Your task to perform on an android device: choose inbox layout in the gmail app Image 0: 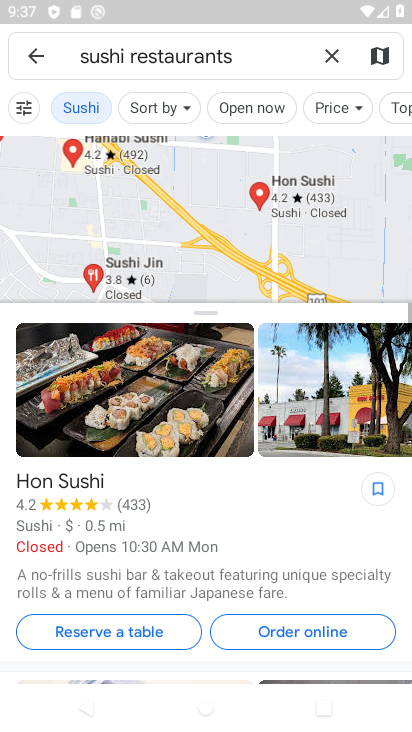
Step 0: press home button
Your task to perform on an android device: choose inbox layout in the gmail app Image 1: 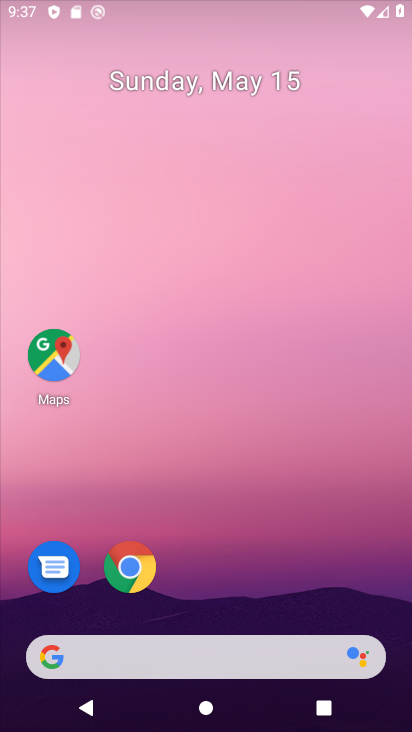
Step 1: drag from (223, 536) to (204, 95)
Your task to perform on an android device: choose inbox layout in the gmail app Image 2: 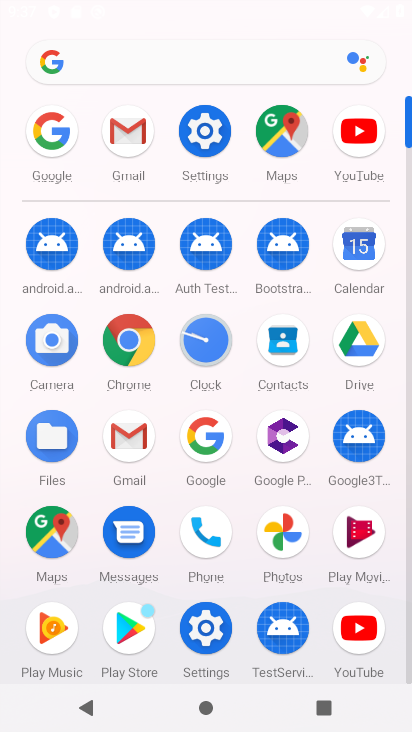
Step 2: click (117, 127)
Your task to perform on an android device: choose inbox layout in the gmail app Image 3: 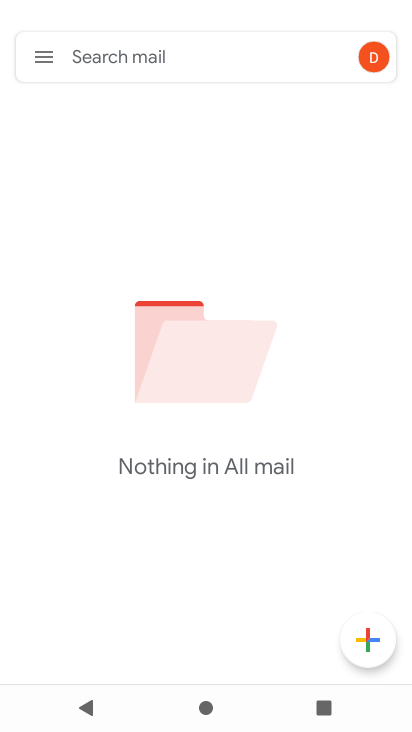
Step 3: click (47, 58)
Your task to perform on an android device: choose inbox layout in the gmail app Image 4: 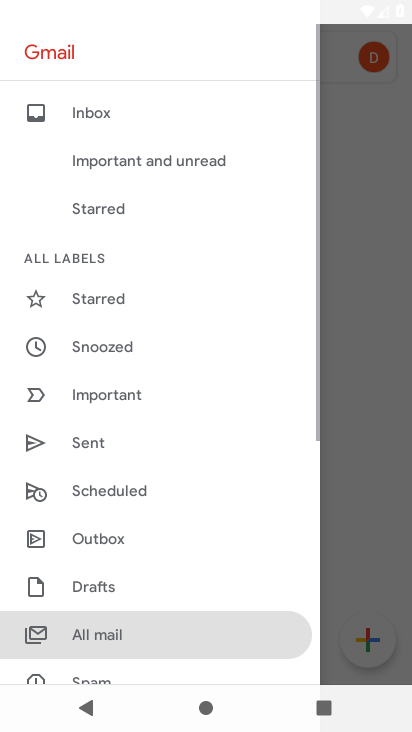
Step 4: drag from (175, 589) to (174, 340)
Your task to perform on an android device: choose inbox layout in the gmail app Image 5: 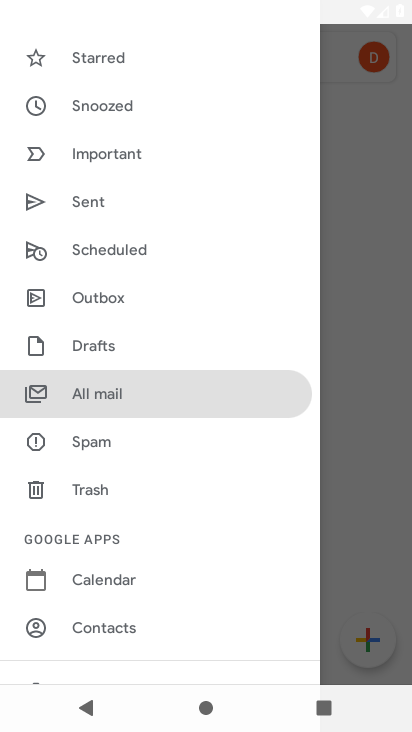
Step 5: drag from (136, 572) to (136, 297)
Your task to perform on an android device: choose inbox layout in the gmail app Image 6: 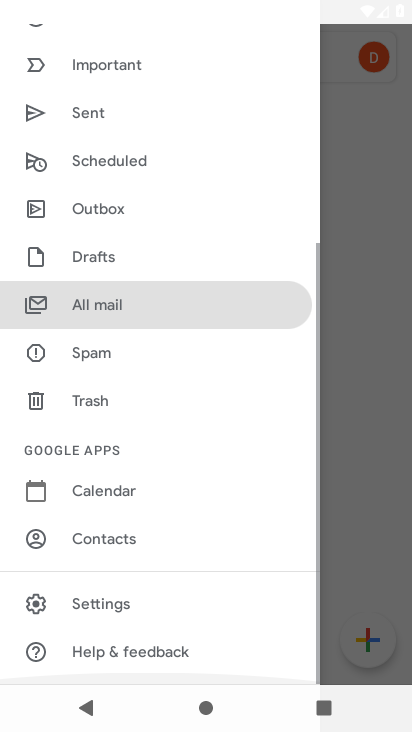
Step 6: click (87, 605)
Your task to perform on an android device: choose inbox layout in the gmail app Image 7: 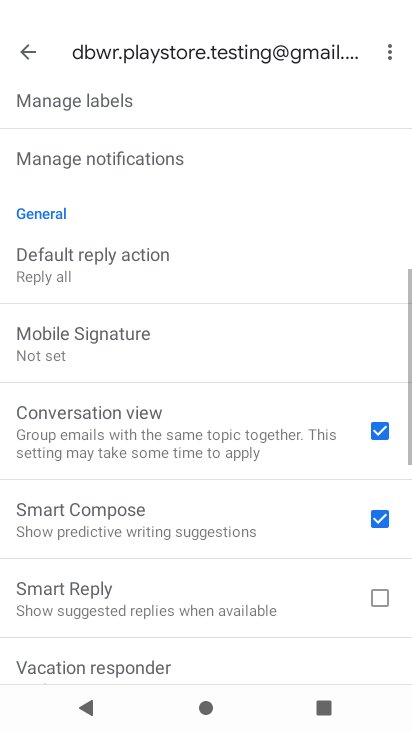
Step 7: drag from (138, 238) to (180, 664)
Your task to perform on an android device: choose inbox layout in the gmail app Image 8: 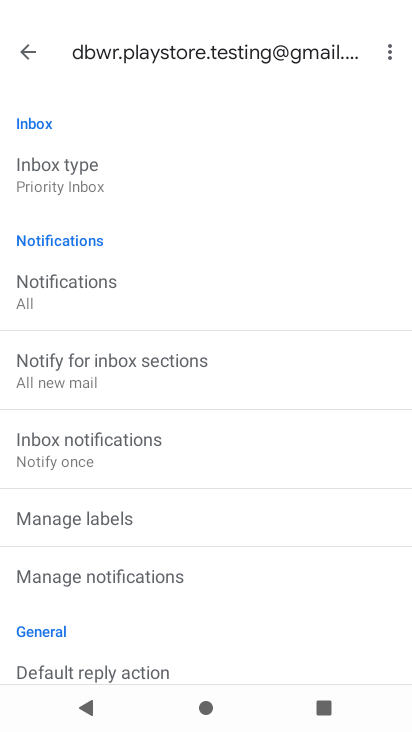
Step 8: click (89, 171)
Your task to perform on an android device: choose inbox layout in the gmail app Image 9: 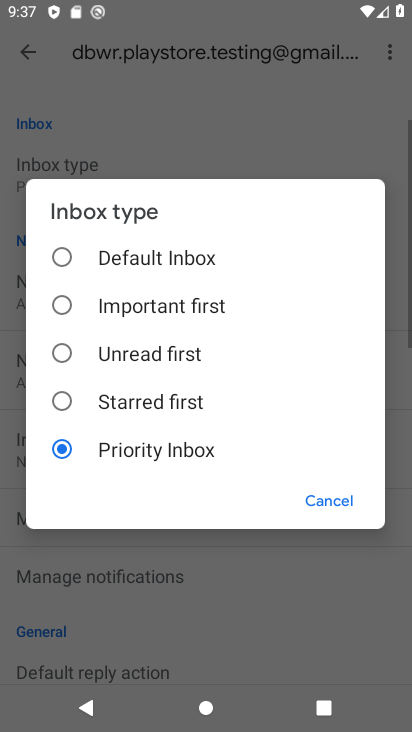
Step 9: click (65, 309)
Your task to perform on an android device: choose inbox layout in the gmail app Image 10: 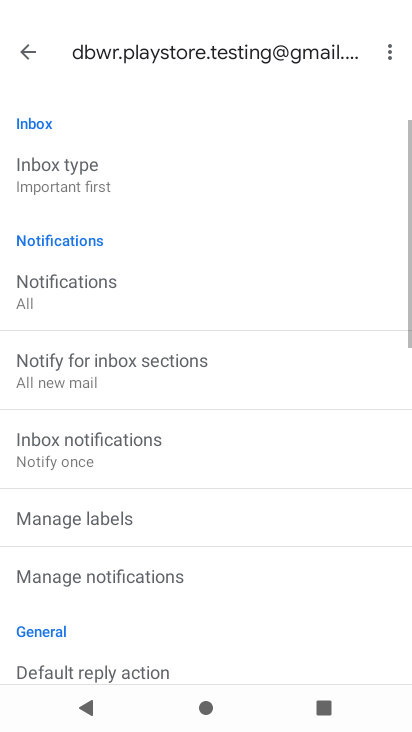
Step 10: task complete